Your task to perform on an android device: turn on the 12-hour format for clock Image 0: 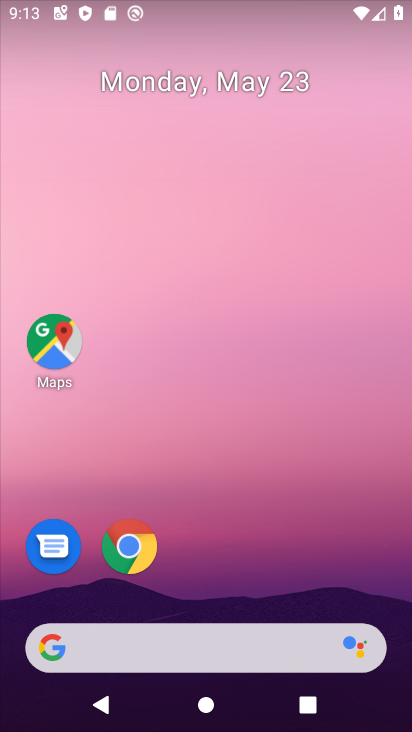
Step 0: drag from (396, 605) to (347, 115)
Your task to perform on an android device: turn on the 12-hour format for clock Image 1: 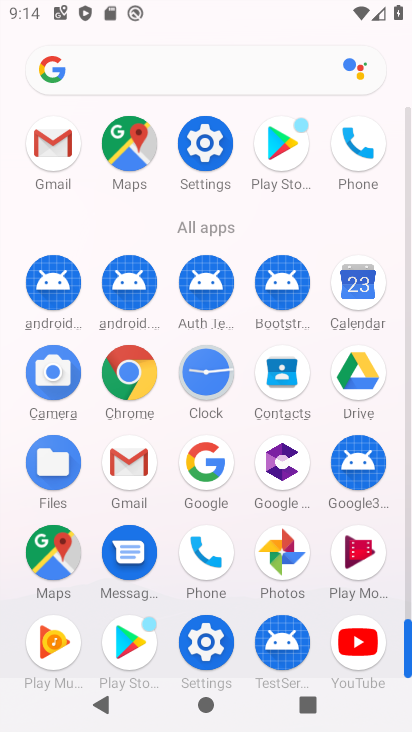
Step 1: click (203, 368)
Your task to perform on an android device: turn on the 12-hour format for clock Image 2: 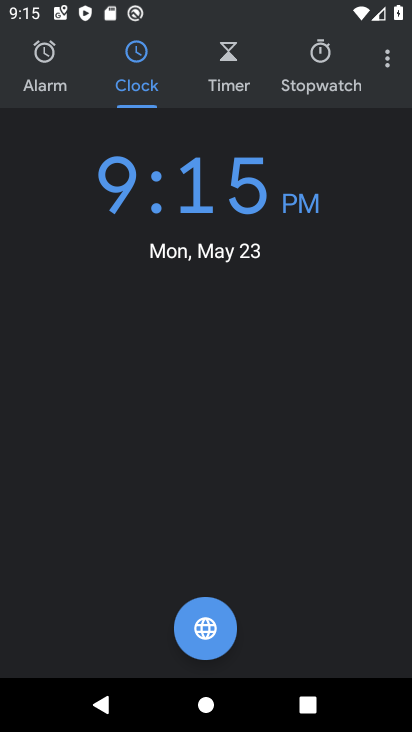
Step 2: click (388, 68)
Your task to perform on an android device: turn on the 12-hour format for clock Image 3: 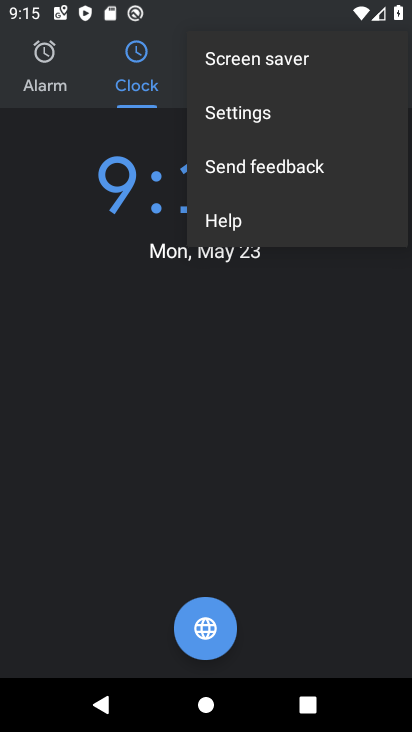
Step 3: click (254, 112)
Your task to perform on an android device: turn on the 12-hour format for clock Image 4: 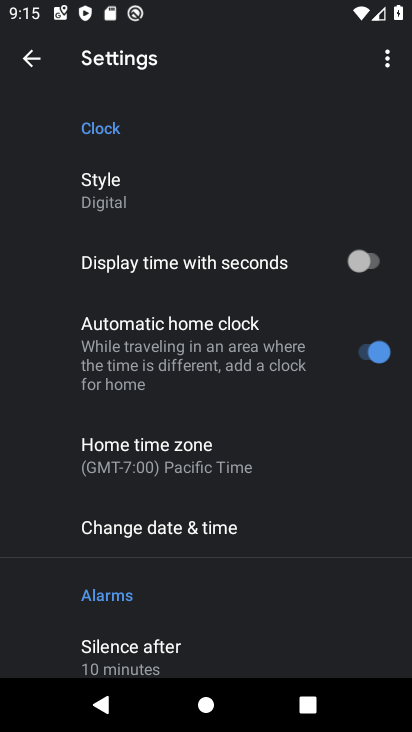
Step 4: click (200, 514)
Your task to perform on an android device: turn on the 12-hour format for clock Image 5: 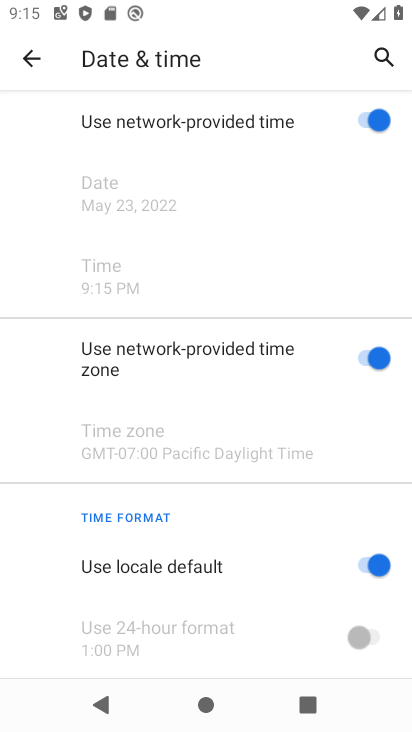
Step 5: task complete